Your task to perform on an android device: install app "Google Translate" Image 0: 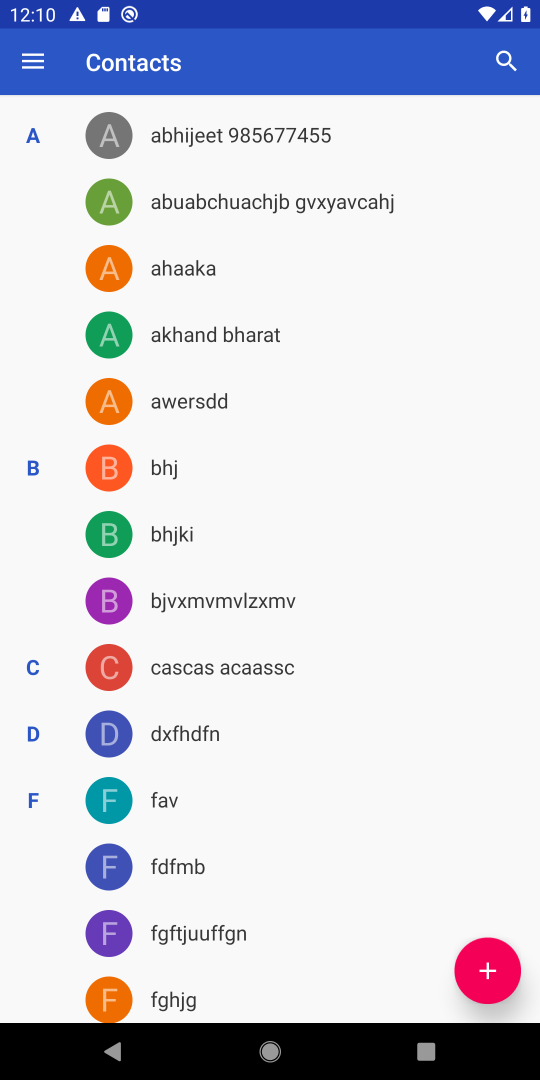
Step 0: press home button
Your task to perform on an android device: install app "Google Translate" Image 1: 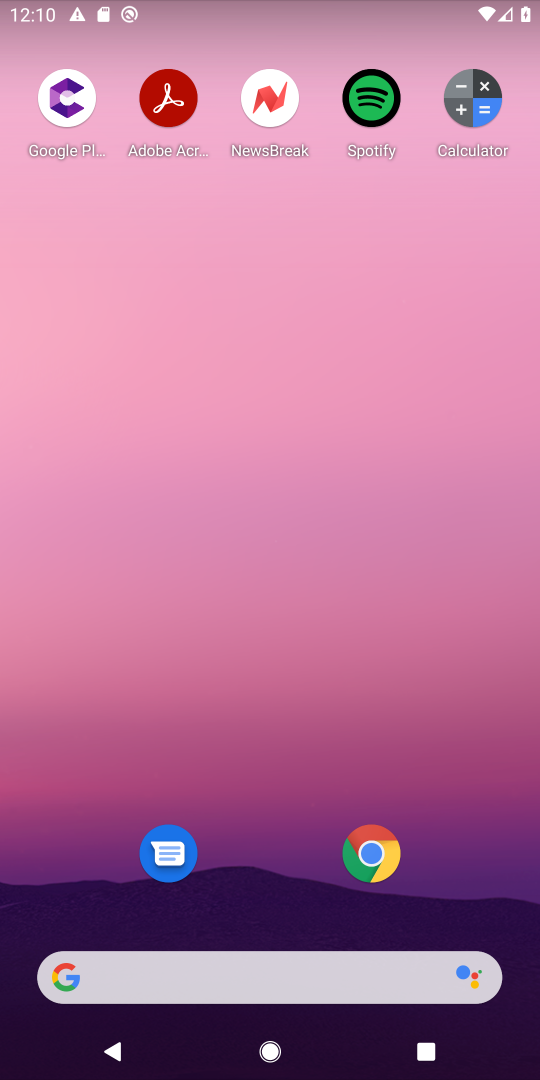
Step 1: drag from (296, 992) to (432, 271)
Your task to perform on an android device: install app "Google Translate" Image 2: 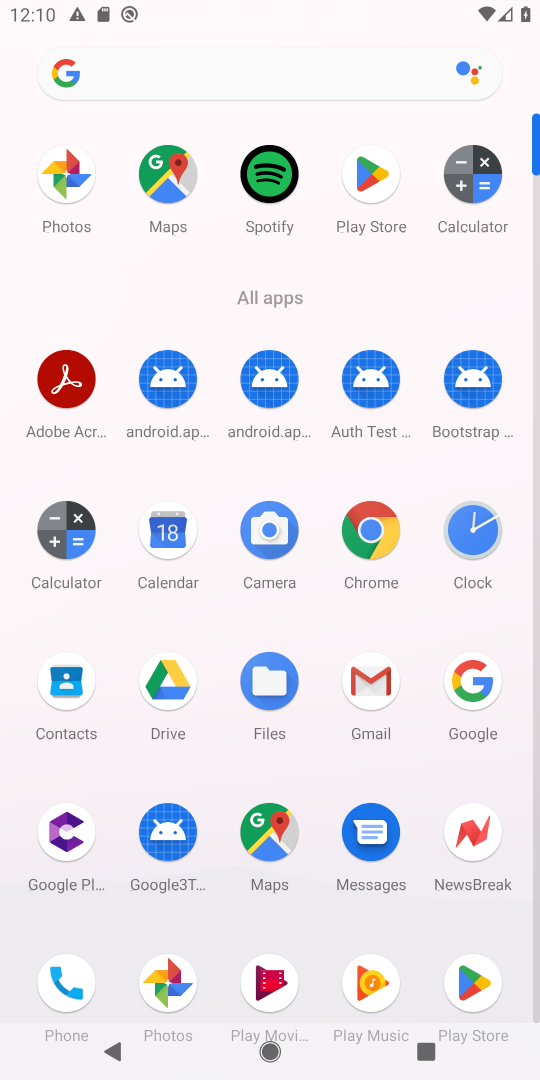
Step 2: click (376, 192)
Your task to perform on an android device: install app "Google Translate" Image 3: 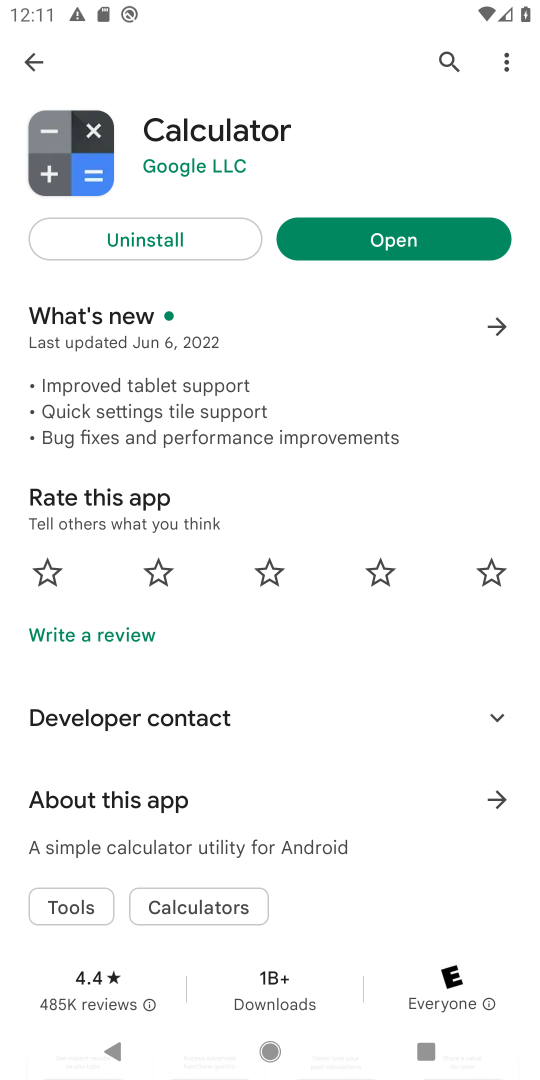
Step 3: click (26, 70)
Your task to perform on an android device: install app "Google Translate" Image 4: 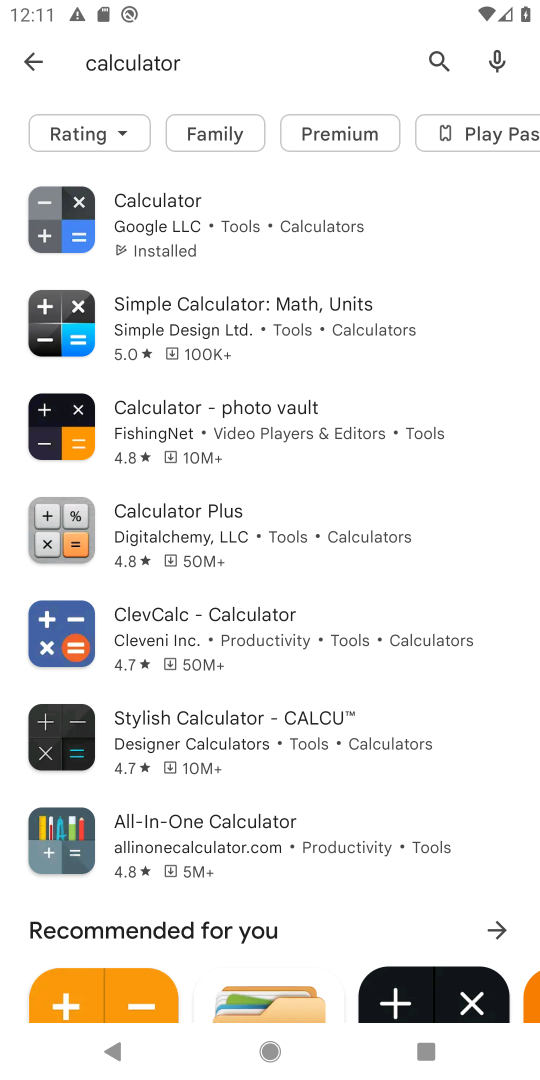
Step 4: click (40, 63)
Your task to perform on an android device: install app "Google Translate" Image 5: 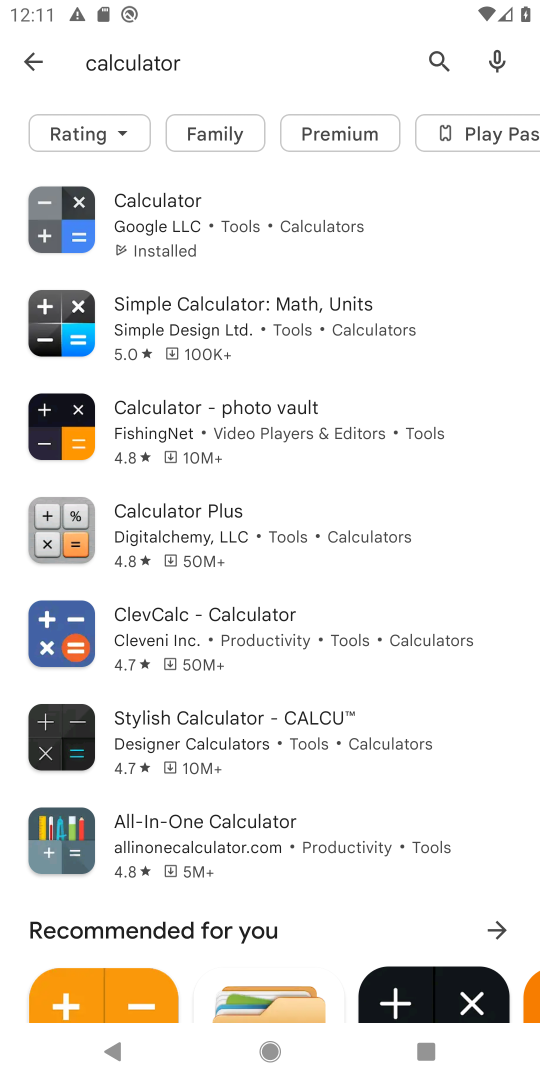
Step 5: click (38, 59)
Your task to perform on an android device: install app "Google Translate" Image 6: 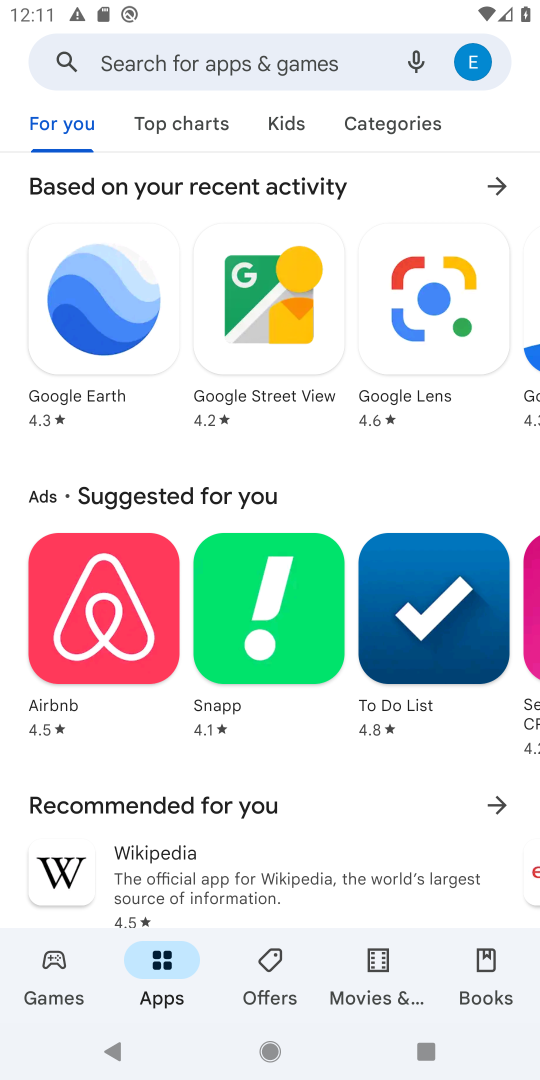
Step 6: click (187, 62)
Your task to perform on an android device: install app "Google Translate" Image 7: 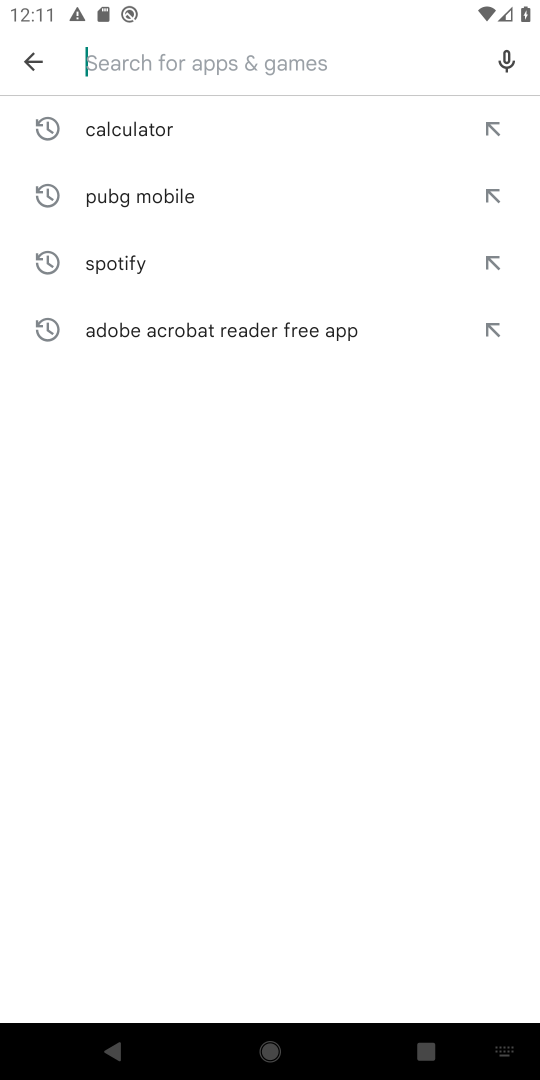
Step 7: type "Google Translate"
Your task to perform on an android device: install app "Google Translate" Image 8: 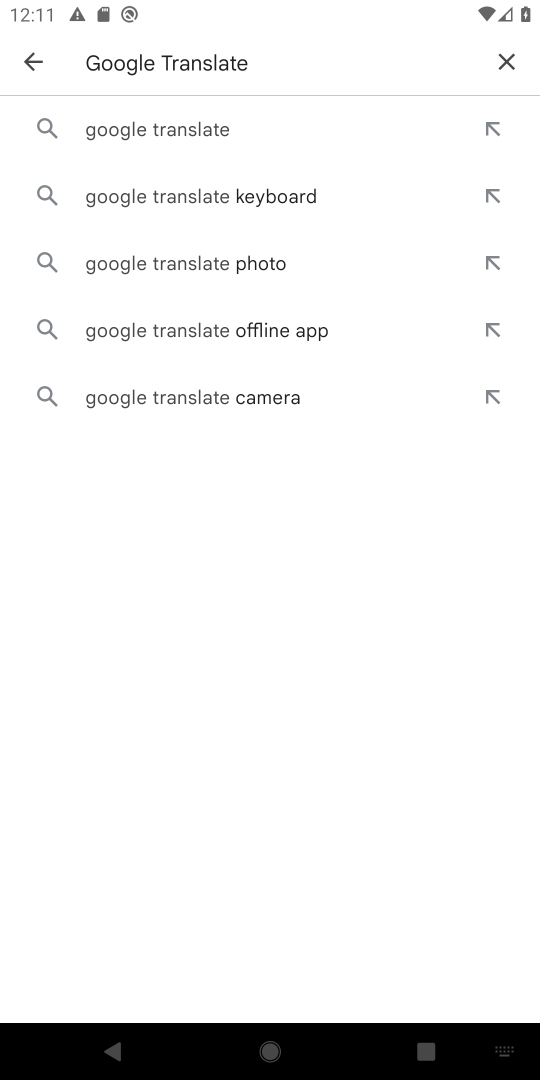
Step 8: click (164, 132)
Your task to perform on an android device: install app "Google Translate" Image 9: 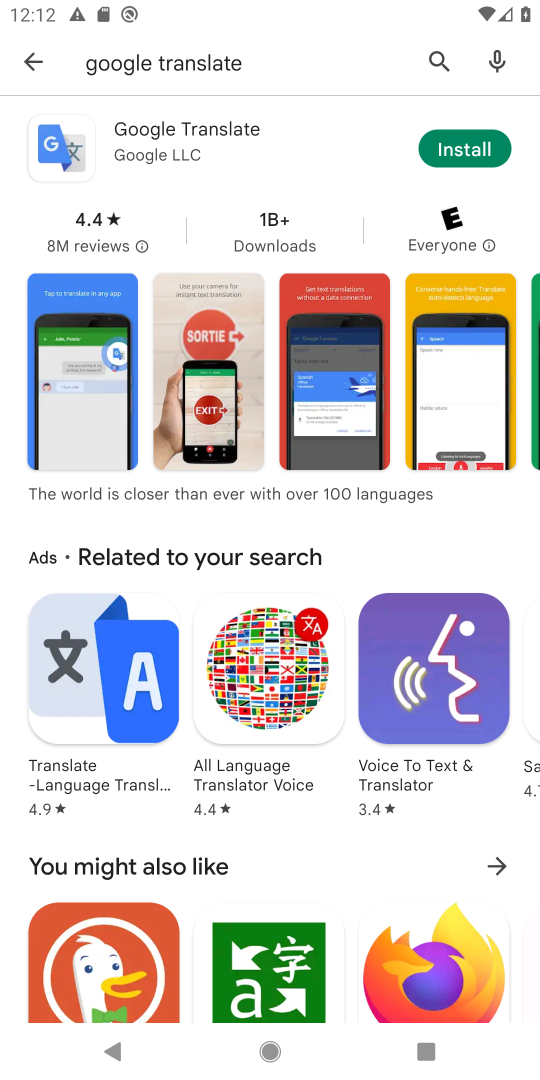
Step 9: click (451, 153)
Your task to perform on an android device: install app "Google Translate" Image 10: 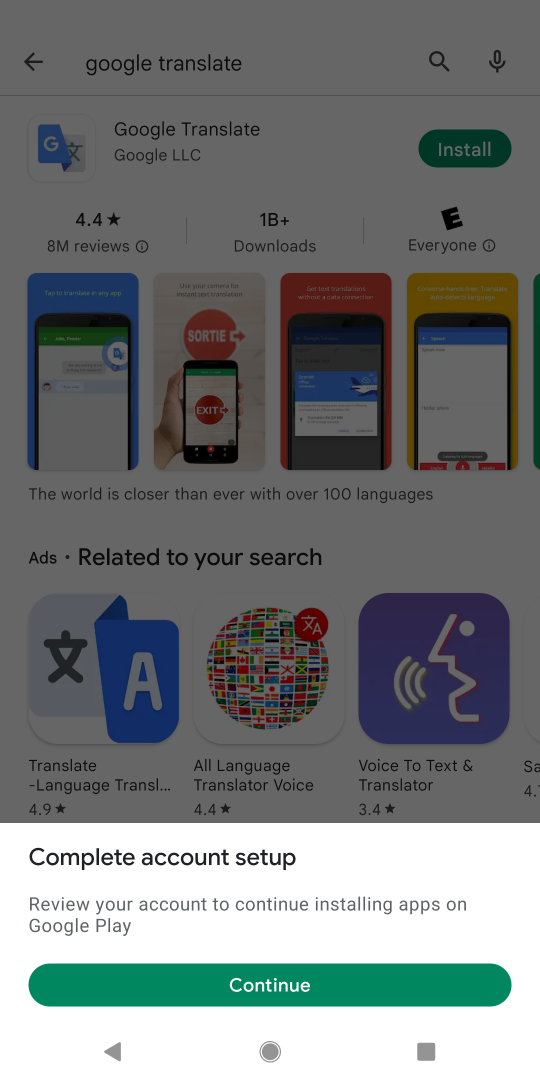
Step 10: click (311, 985)
Your task to perform on an android device: install app "Google Translate" Image 11: 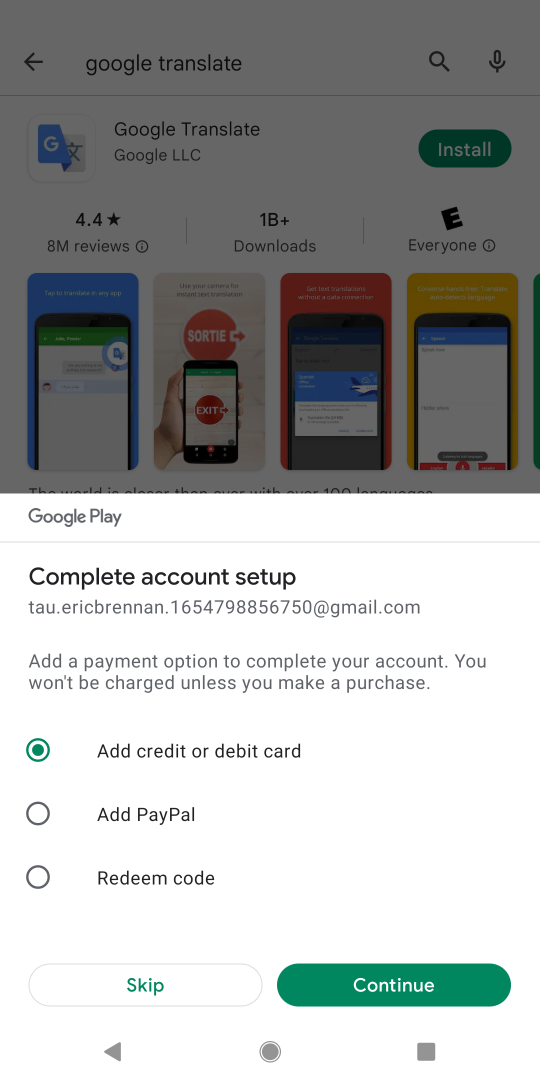
Step 11: click (143, 976)
Your task to perform on an android device: install app "Google Translate" Image 12: 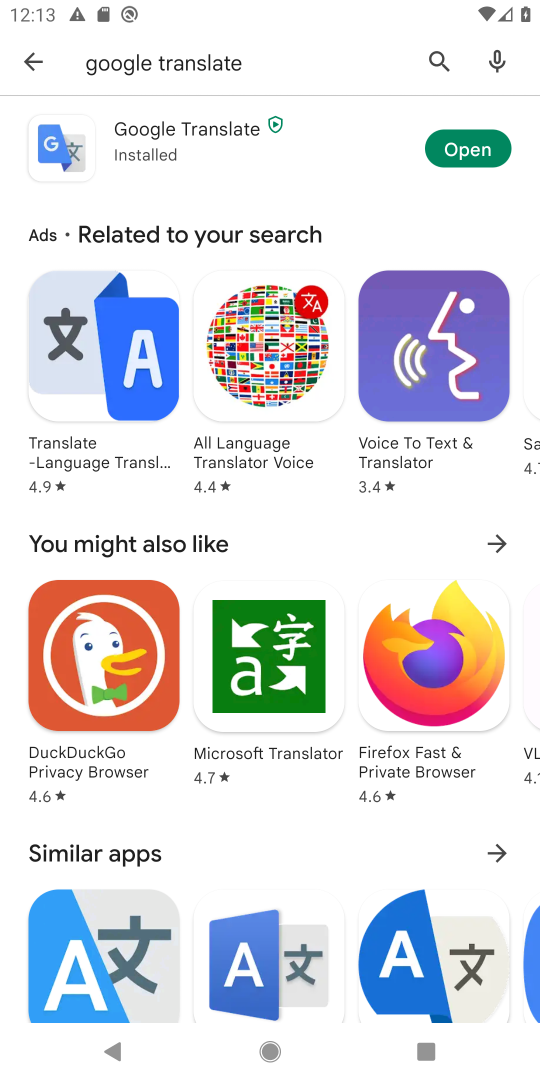
Step 12: task complete